Your task to perform on an android device: stop showing notifications on the lock screen Image 0: 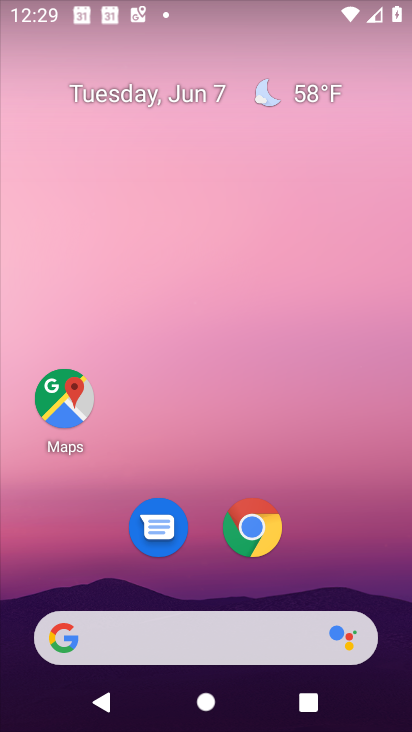
Step 0: drag from (259, 642) to (194, 44)
Your task to perform on an android device: stop showing notifications on the lock screen Image 1: 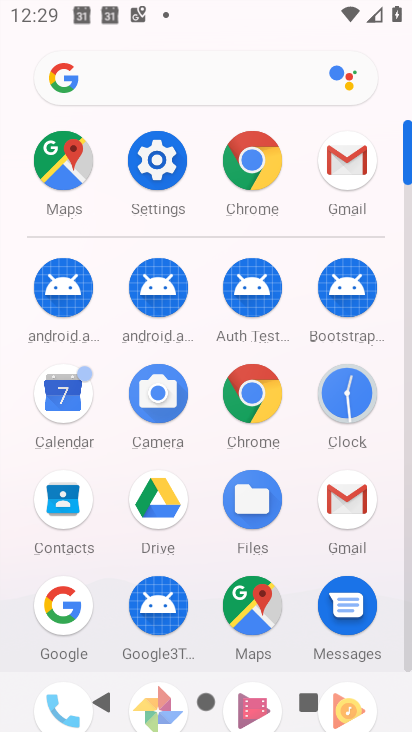
Step 1: click (161, 168)
Your task to perform on an android device: stop showing notifications on the lock screen Image 2: 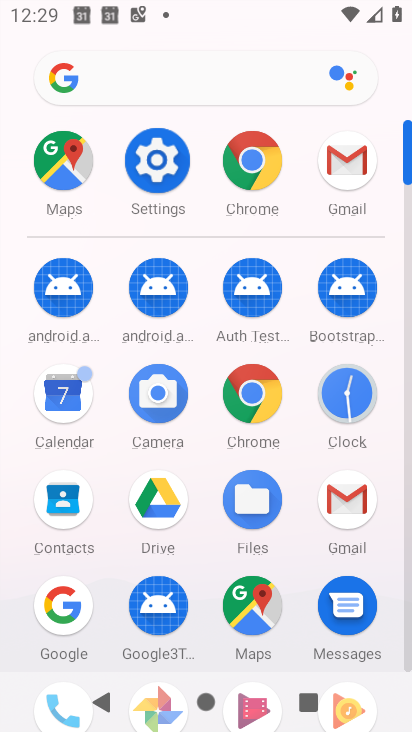
Step 2: click (164, 160)
Your task to perform on an android device: stop showing notifications on the lock screen Image 3: 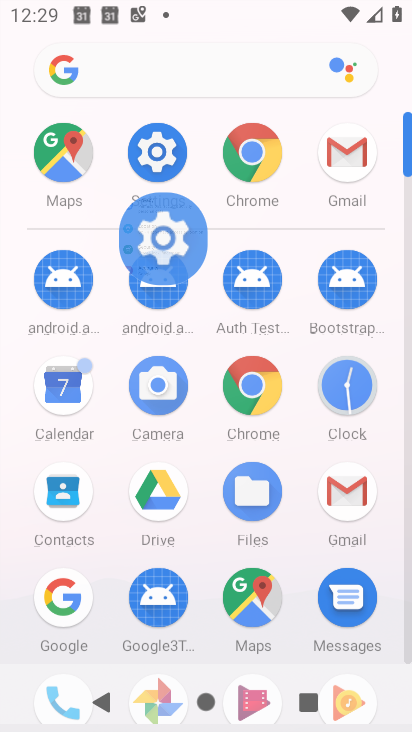
Step 3: click (164, 160)
Your task to perform on an android device: stop showing notifications on the lock screen Image 4: 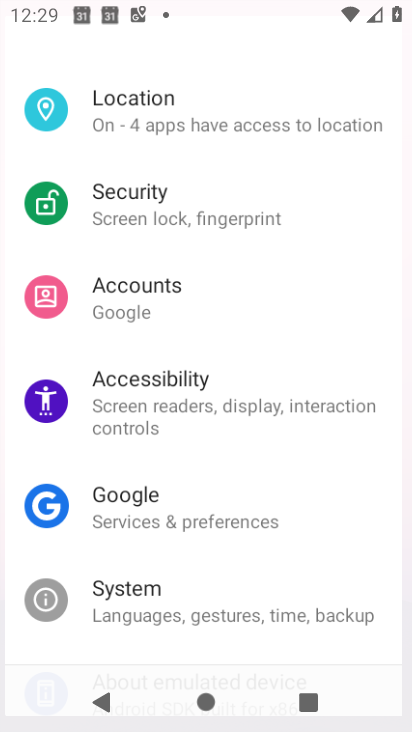
Step 4: click (164, 160)
Your task to perform on an android device: stop showing notifications on the lock screen Image 5: 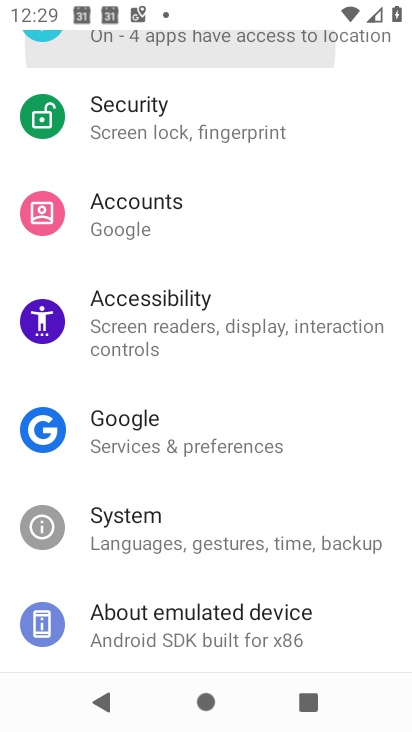
Step 5: click (164, 160)
Your task to perform on an android device: stop showing notifications on the lock screen Image 6: 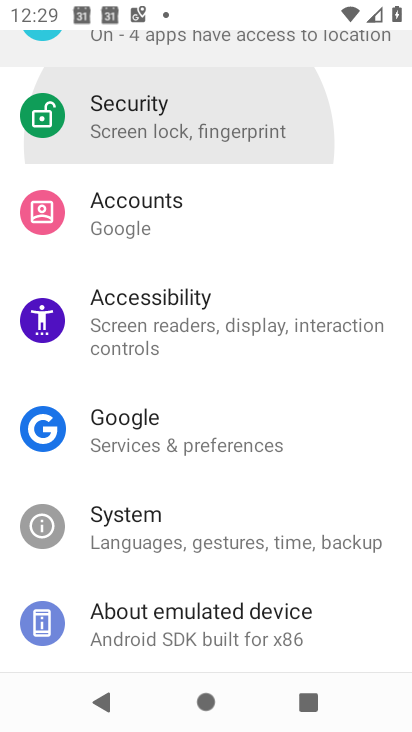
Step 6: click (164, 160)
Your task to perform on an android device: stop showing notifications on the lock screen Image 7: 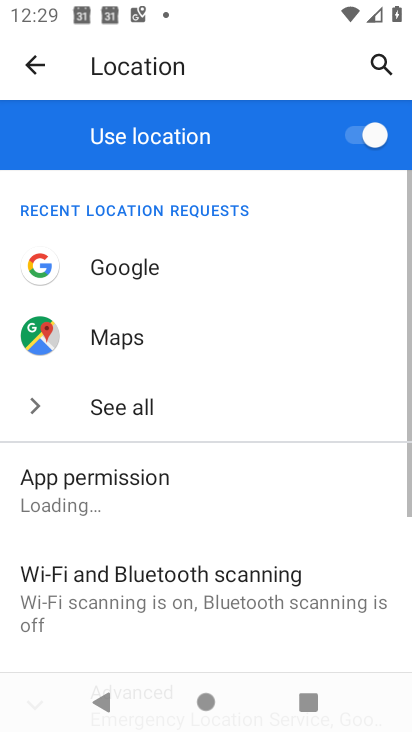
Step 7: click (21, 63)
Your task to perform on an android device: stop showing notifications on the lock screen Image 8: 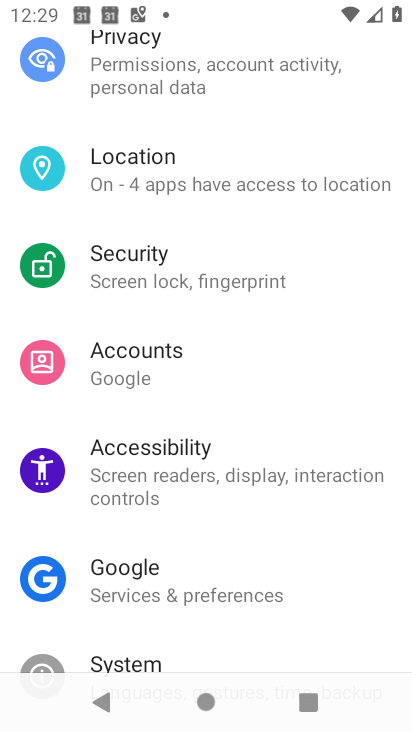
Step 8: drag from (142, 411) to (137, 172)
Your task to perform on an android device: stop showing notifications on the lock screen Image 9: 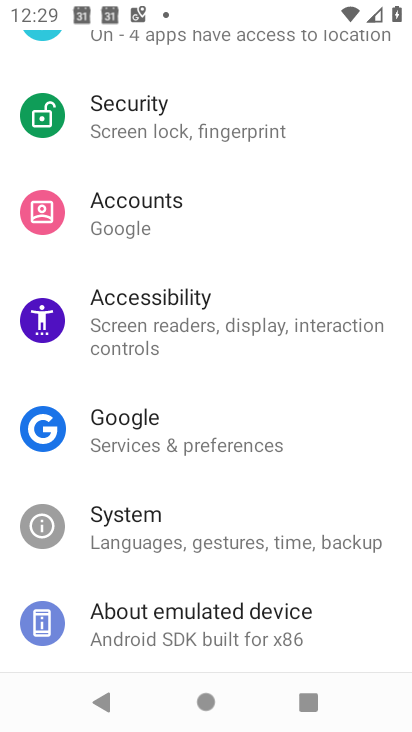
Step 9: drag from (187, 437) to (176, 211)
Your task to perform on an android device: stop showing notifications on the lock screen Image 10: 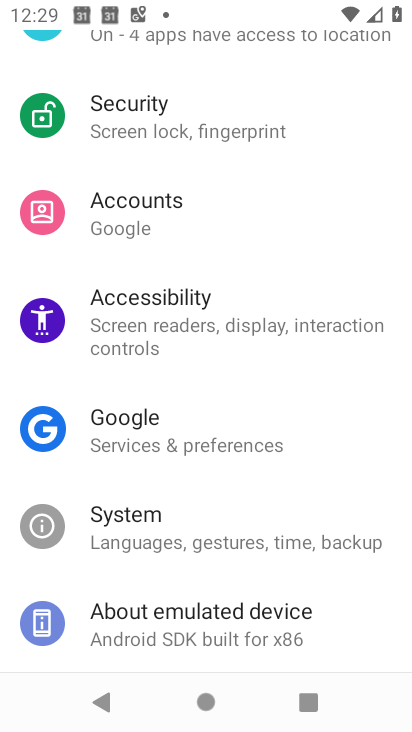
Step 10: drag from (120, 200) to (215, 530)
Your task to perform on an android device: stop showing notifications on the lock screen Image 11: 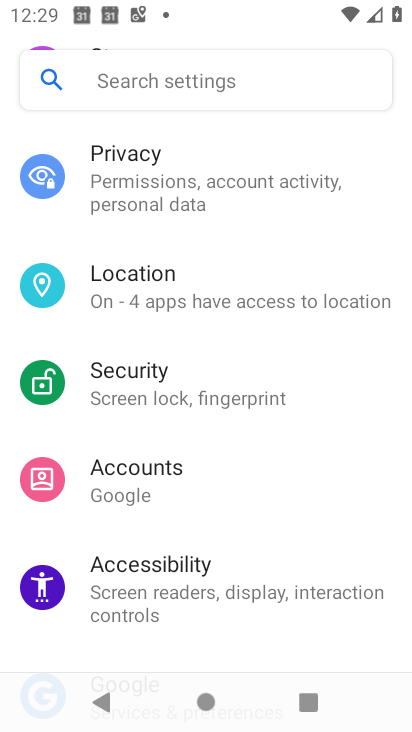
Step 11: drag from (62, 205) to (78, 489)
Your task to perform on an android device: stop showing notifications on the lock screen Image 12: 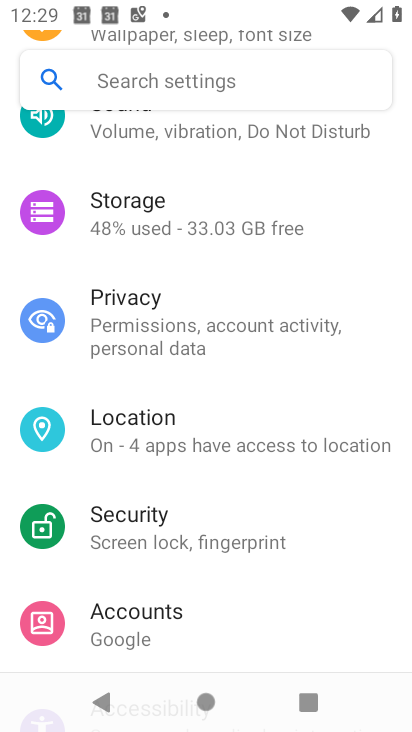
Step 12: drag from (104, 228) to (152, 596)
Your task to perform on an android device: stop showing notifications on the lock screen Image 13: 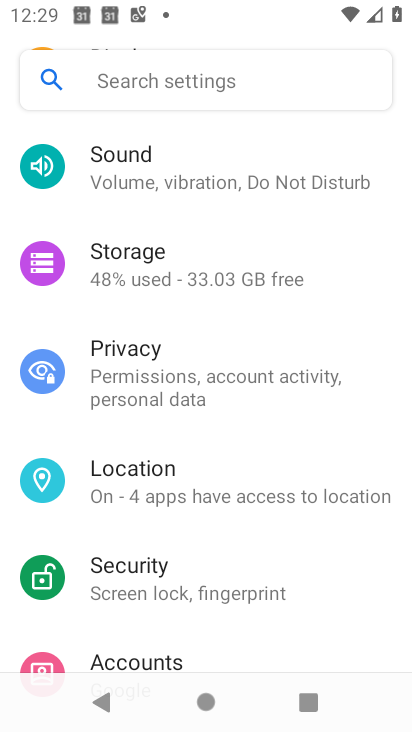
Step 13: drag from (137, 262) to (194, 618)
Your task to perform on an android device: stop showing notifications on the lock screen Image 14: 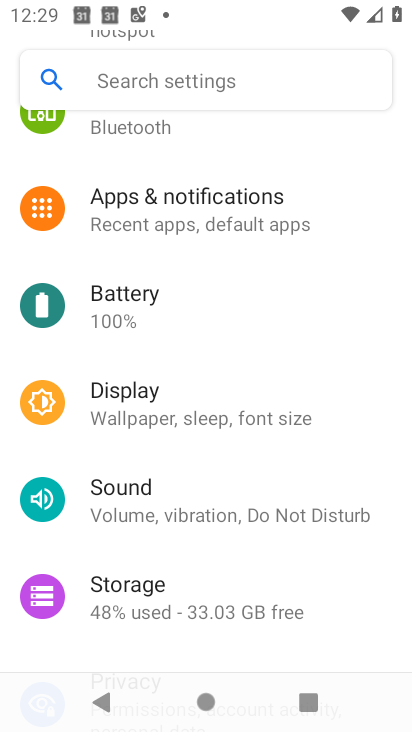
Step 14: drag from (164, 353) to (199, 515)
Your task to perform on an android device: stop showing notifications on the lock screen Image 15: 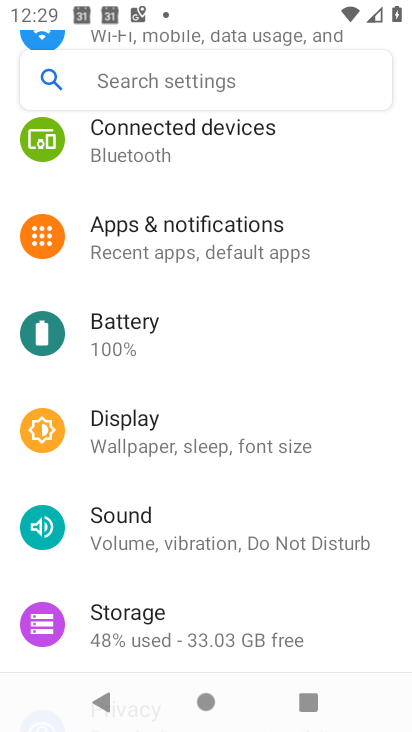
Step 15: drag from (177, 268) to (235, 499)
Your task to perform on an android device: stop showing notifications on the lock screen Image 16: 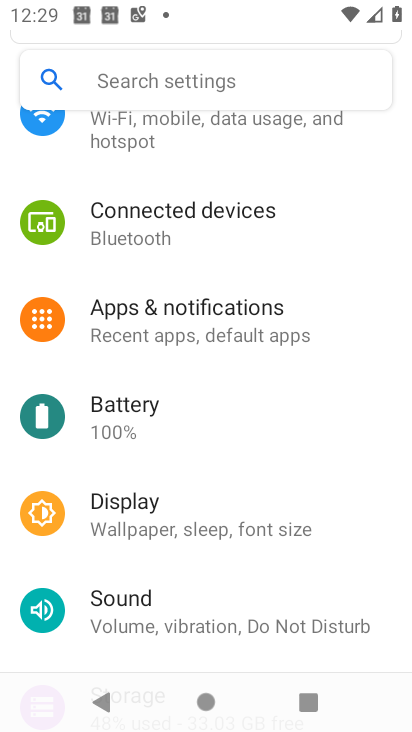
Step 16: click (171, 311)
Your task to perform on an android device: stop showing notifications on the lock screen Image 17: 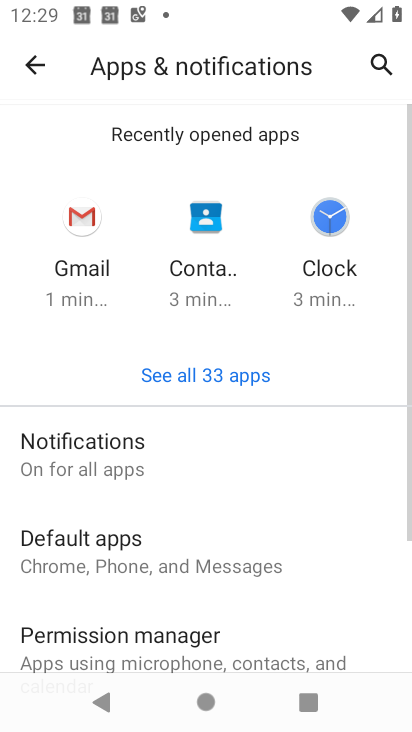
Step 17: click (79, 463)
Your task to perform on an android device: stop showing notifications on the lock screen Image 18: 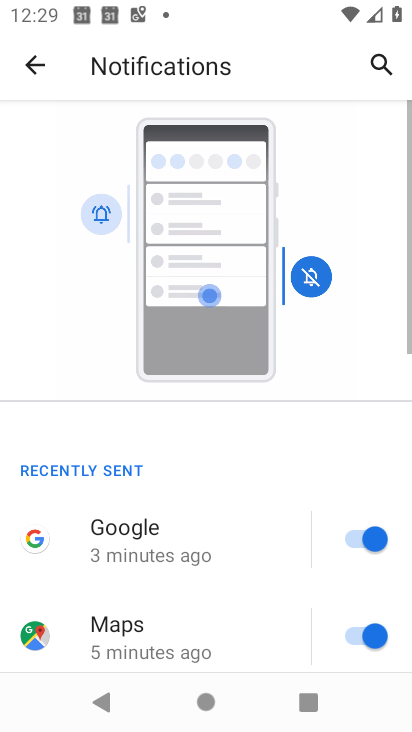
Step 18: drag from (164, 461) to (111, 184)
Your task to perform on an android device: stop showing notifications on the lock screen Image 19: 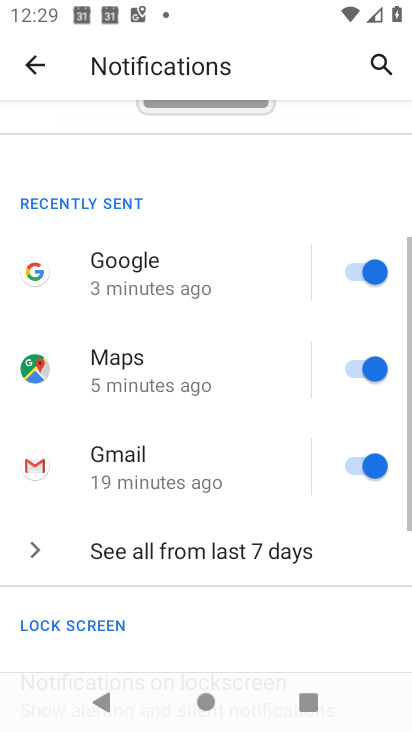
Step 19: drag from (147, 403) to (124, 244)
Your task to perform on an android device: stop showing notifications on the lock screen Image 20: 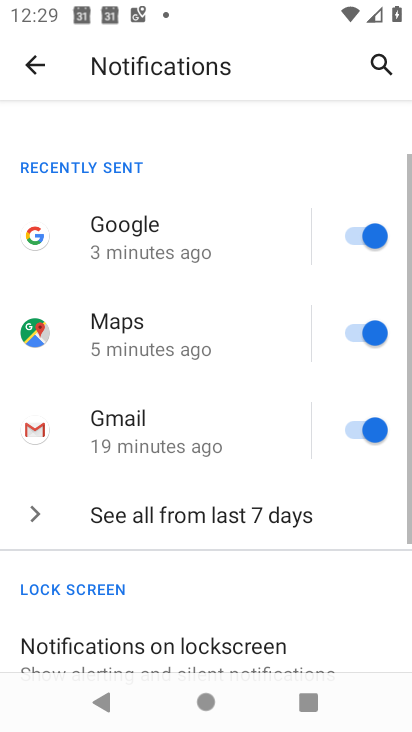
Step 20: drag from (203, 435) to (167, 205)
Your task to perform on an android device: stop showing notifications on the lock screen Image 21: 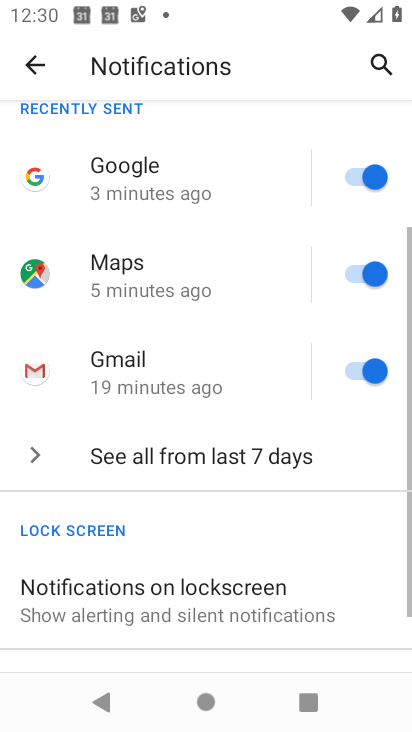
Step 21: drag from (174, 408) to (152, 173)
Your task to perform on an android device: stop showing notifications on the lock screen Image 22: 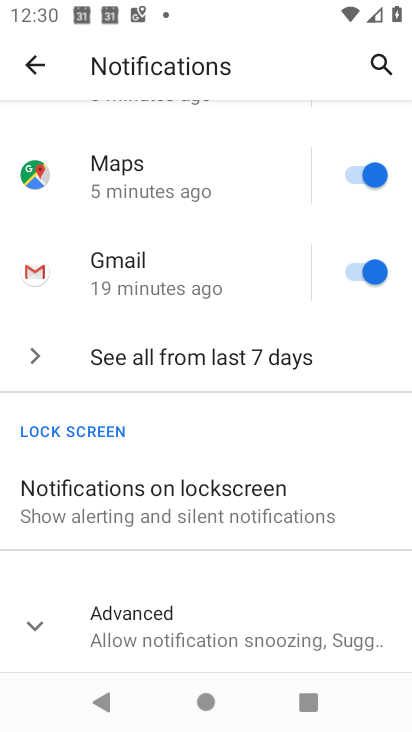
Step 22: click (131, 508)
Your task to perform on an android device: stop showing notifications on the lock screen Image 23: 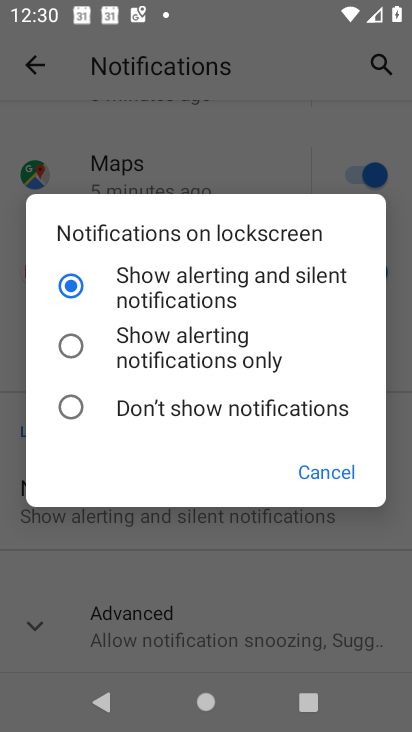
Step 23: task complete